Your task to perform on an android device: turn on priority inbox in the gmail app Image 0: 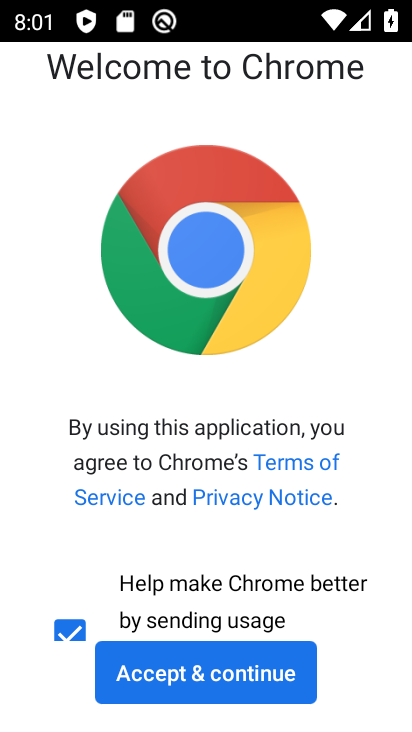
Step 0: press home button
Your task to perform on an android device: turn on priority inbox in the gmail app Image 1: 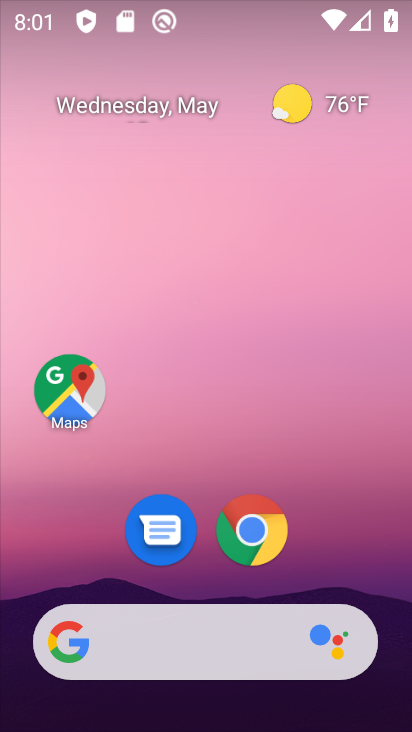
Step 1: drag from (365, 404) to (350, 207)
Your task to perform on an android device: turn on priority inbox in the gmail app Image 2: 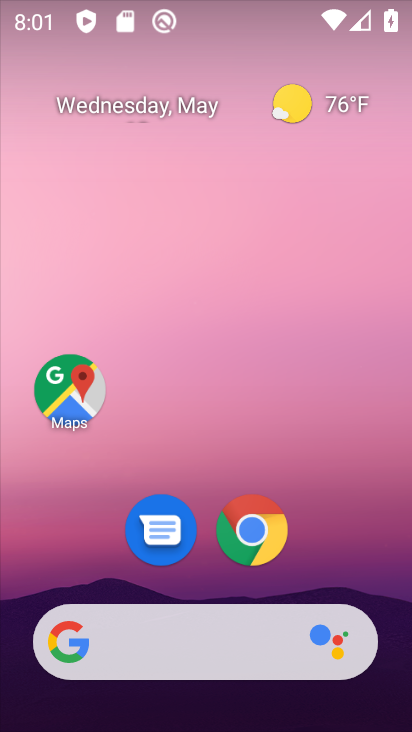
Step 2: drag from (351, 416) to (347, 193)
Your task to perform on an android device: turn on priority inbox in the gmail app Image 3: 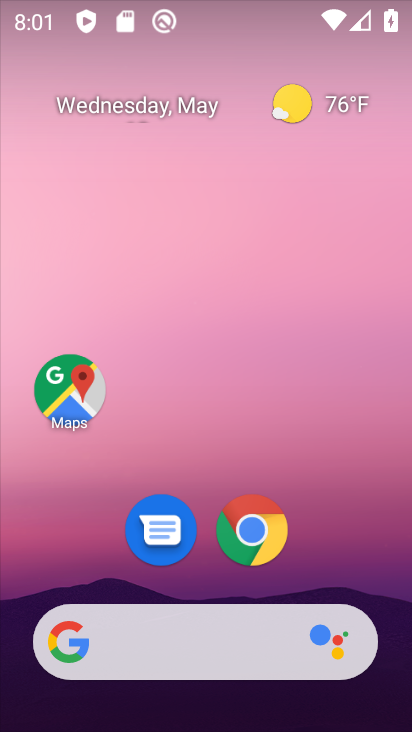
Step 3: drag from (363, 481) to (317, 81)
Your task to perform on an android device: turn on priority inbox in the gmail app Image 4: 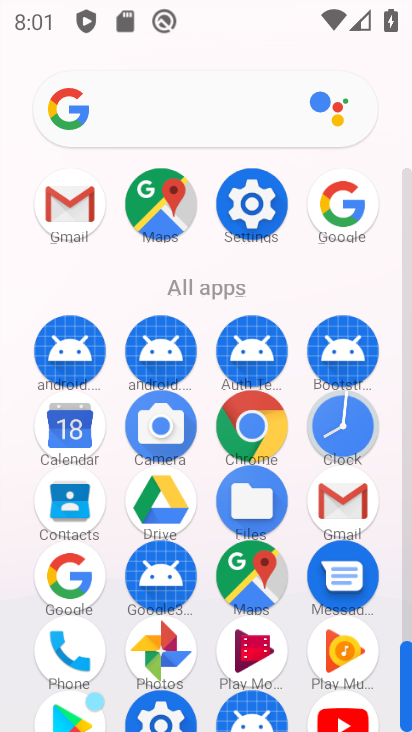
Step 4: click (357, 524)
Your task to perform on an android device: turn on priority inbox in the gmail app Image 5: 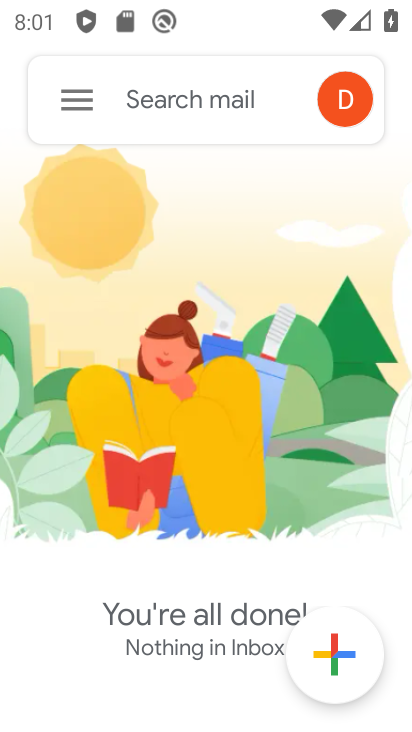
Step 5: click (81, 117)
Your task to perform on an android device: turn on priority inbox in the gmail app Image 6: 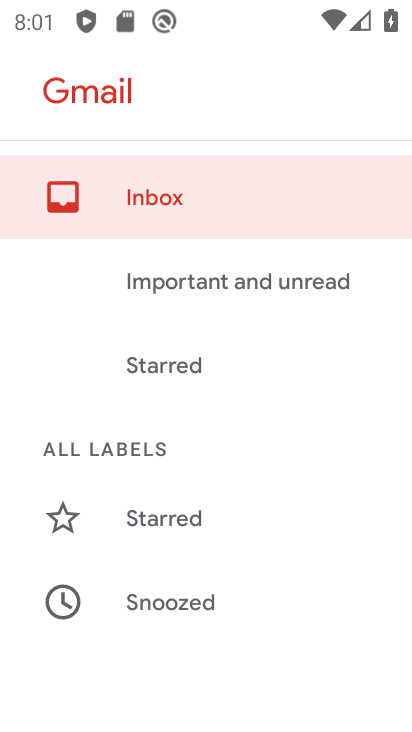
Step 6: drag from (271, 574) to (289, 95)
Your task to perform on an android device: turn on priority inbox in the gmail app Image 7: 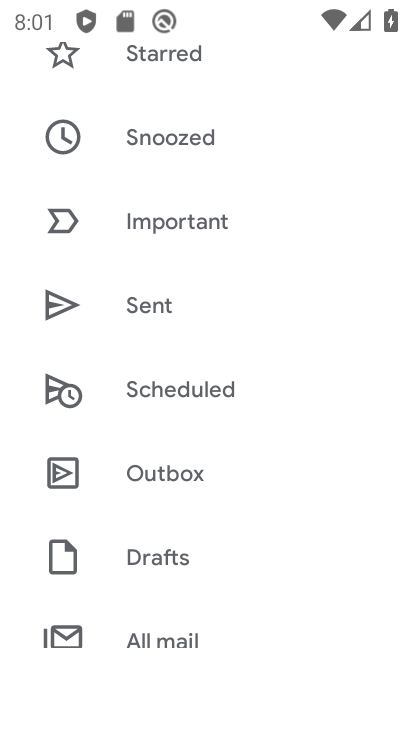
Step 7: drag from (279, 559) to (332, 230)
Your task to perform on an android device: turn on priority inbox in the gmail app Image 8: 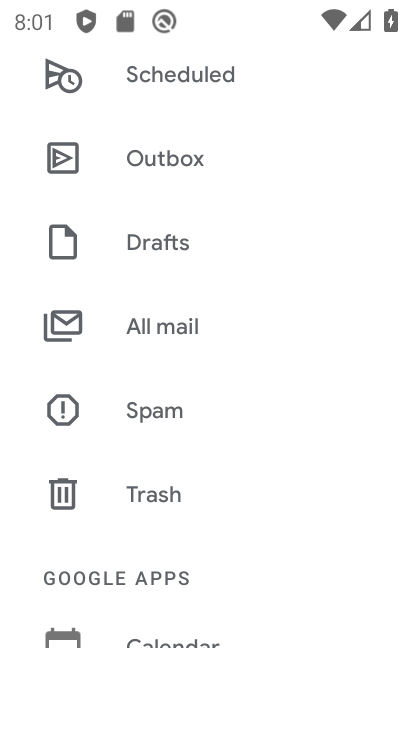
Step 8: drag from (221, 576) to (243, 240)
Your task to perform on an android device: turn on priority inbox in the gmail app Image 9: 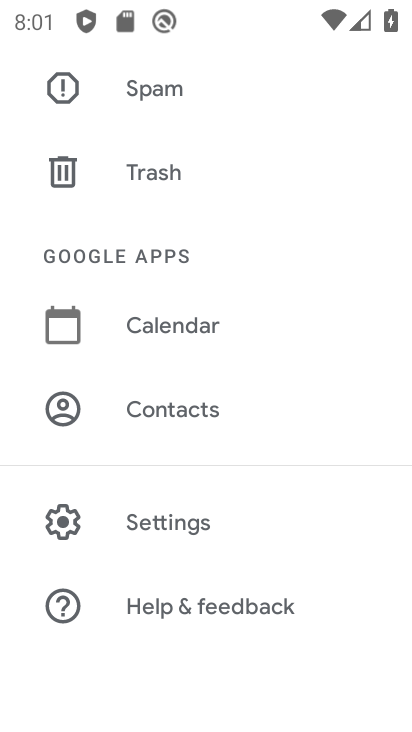
Step 9: click (175, 517)
Your task to perform on an android device: turn on priority inbox in the gmail app Image 10: 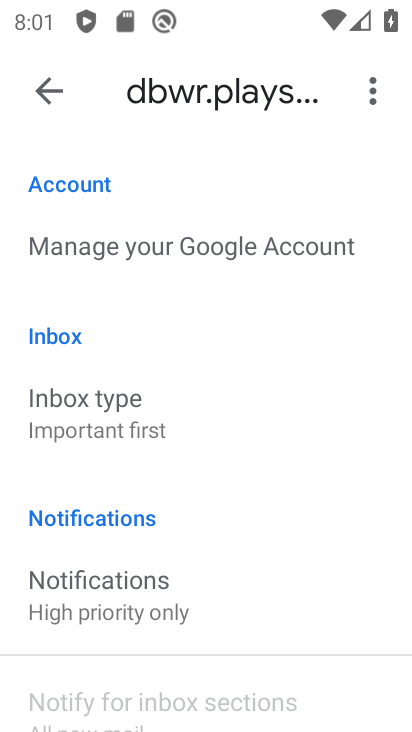
Step 10: click (80, 407)
Your task to perform on an android device: turn on priority inbox in the gmail app Image 11: 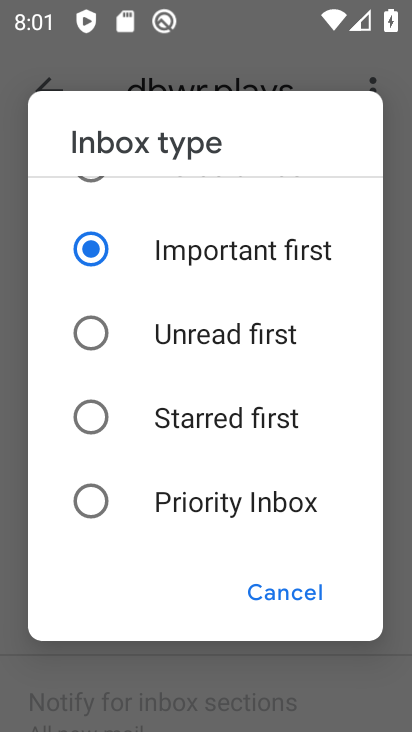
Step 11: click (89, 507)
Your task to perform on an android device: turn on priority inbox in the gmail app Image 12: 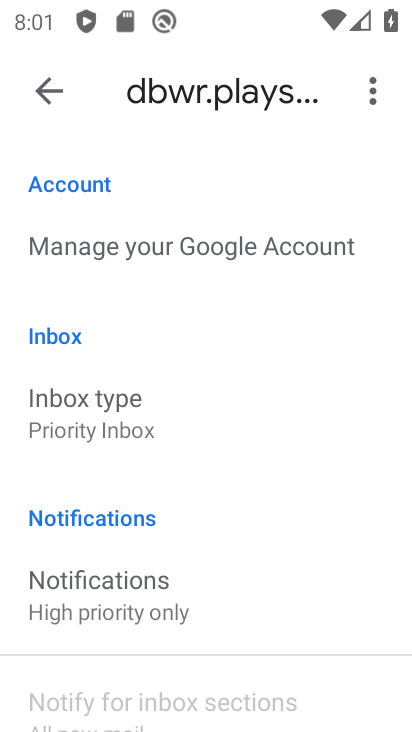
Step 12: task complete